Your task to perform on an android device: Go to CNN.com Image 0: 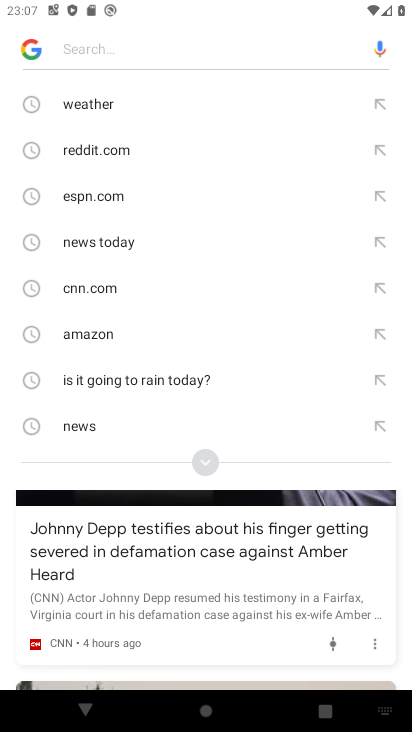
Step 0: press home button
Your task to perform on an android device: Go to CNN.com Image 1: 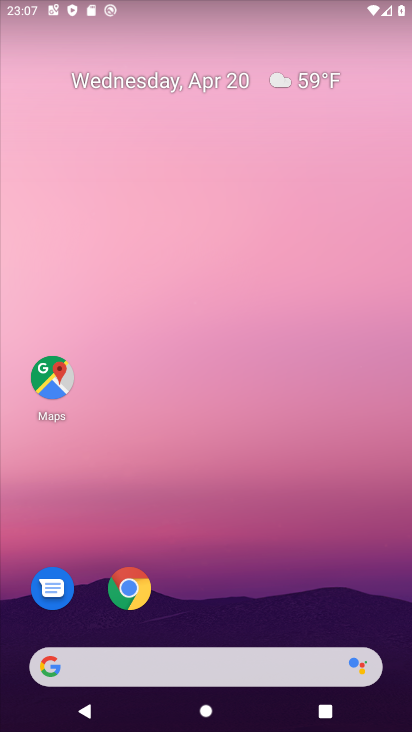
Step 1: click (127, 585)
Your task to perform on an android device: Go to CNN.com Image 2: 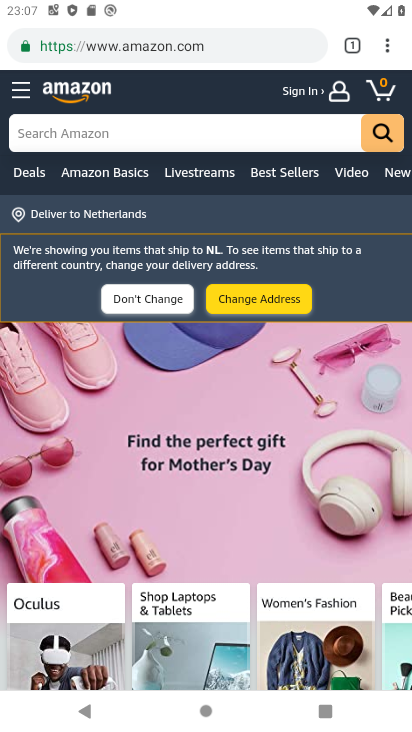
Step 2: click (386, 51)
Your task to perform on an android device: Go to CNN.com Image 3: 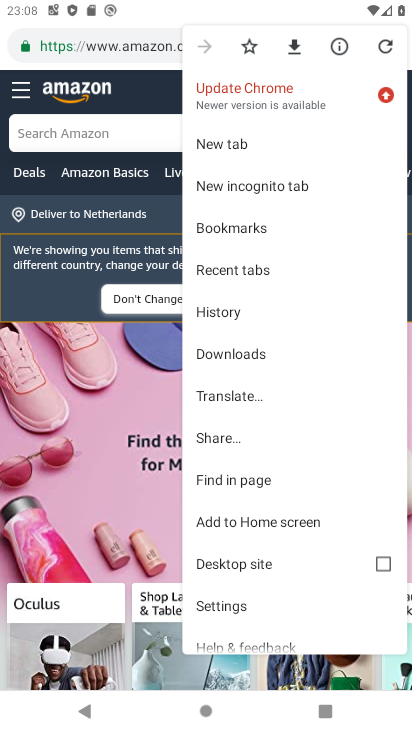
Step 3: click (229, 140)
Your task to perform on an android device: Go to CNN.com Image 4: 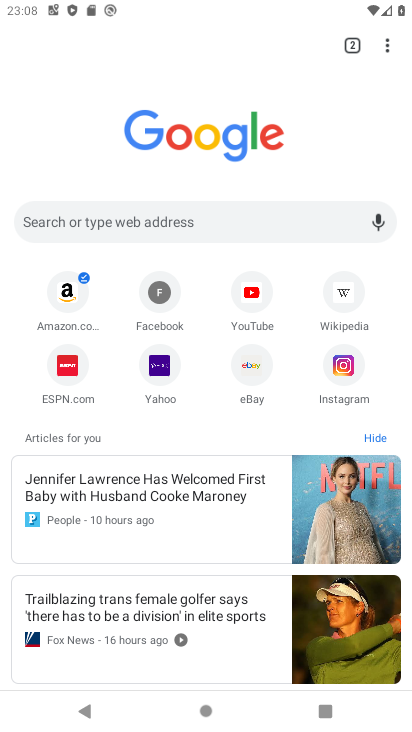
Step 4: click (65, 376)
Your task to perform on an android device: Go to CNN.com Image 5: 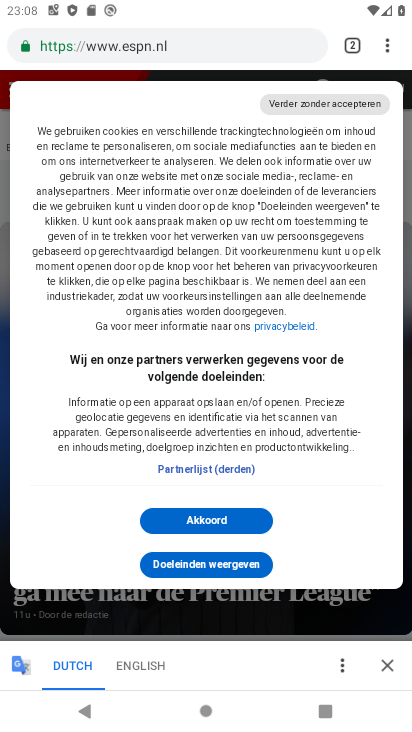
Step 5: task complete